Your task to perform on an android device: Search for jbl flip 4 on walmart, select the first entry, and add it to the cart. Image 0: 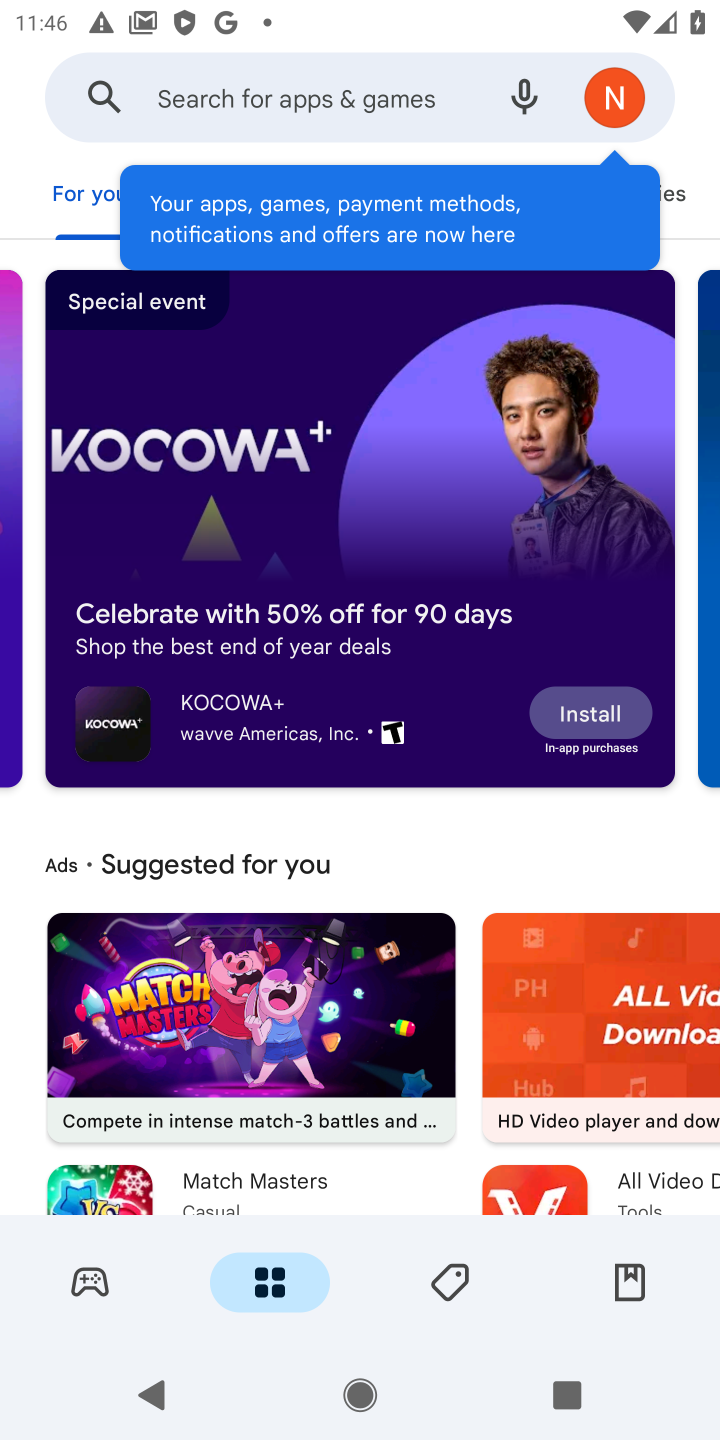
Step 0: press home button
Your task to perform on an android device: Search for jbl flip 4 on walmart, select the first entry, and add it to the cart. Image 1: 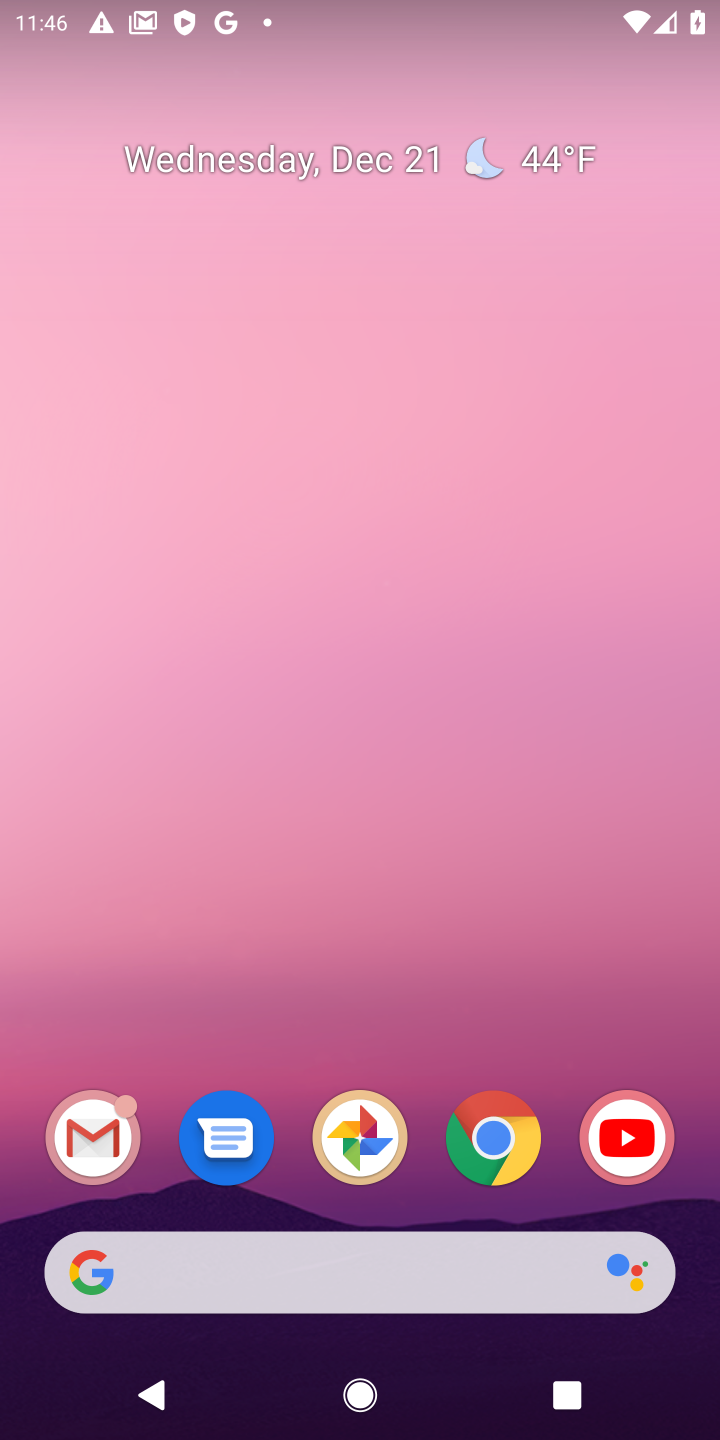
Step 1: click (490, 1146)
Your task to perform on an android device: Search for jbl flip 4 on walmart, select the first entry, and add it to the cart. Image 2: 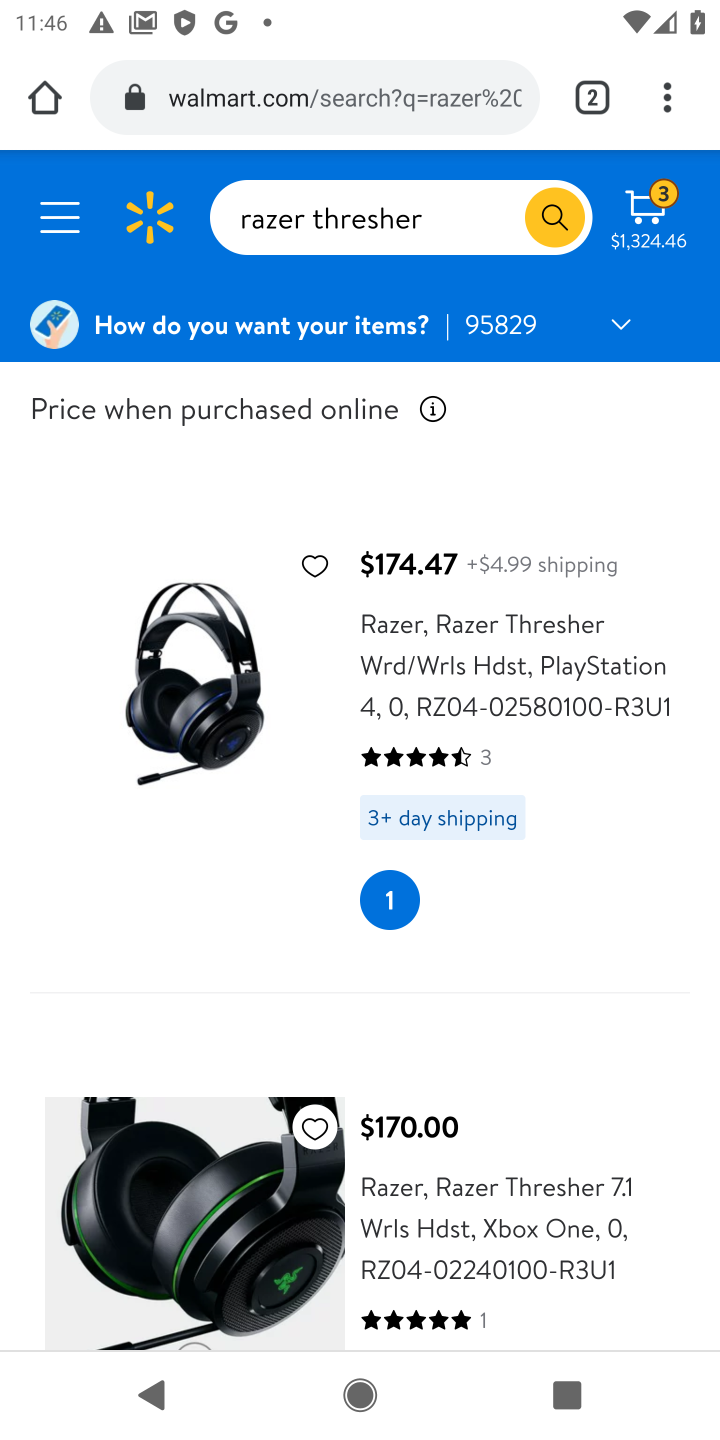
Step 2: click (426, 219)
Your task to perform on an android device: Search for jbl flip 4 on walmart, select the first entry, and add it to the cart. Image 3: 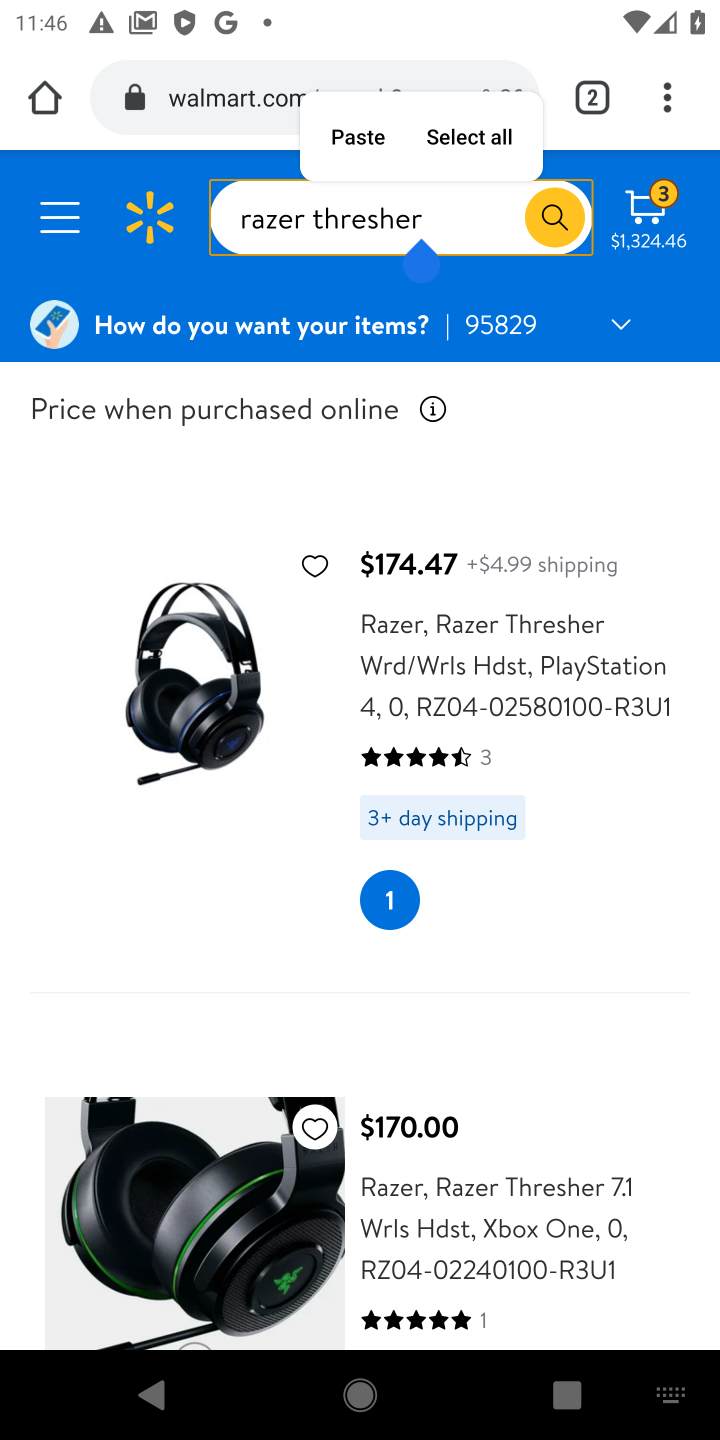
Step 3: click (542, 220)
Your task to perform on an android device: Search for jbl flip 4 on walmart, select the first entry, and add it to the cart. Image 4: 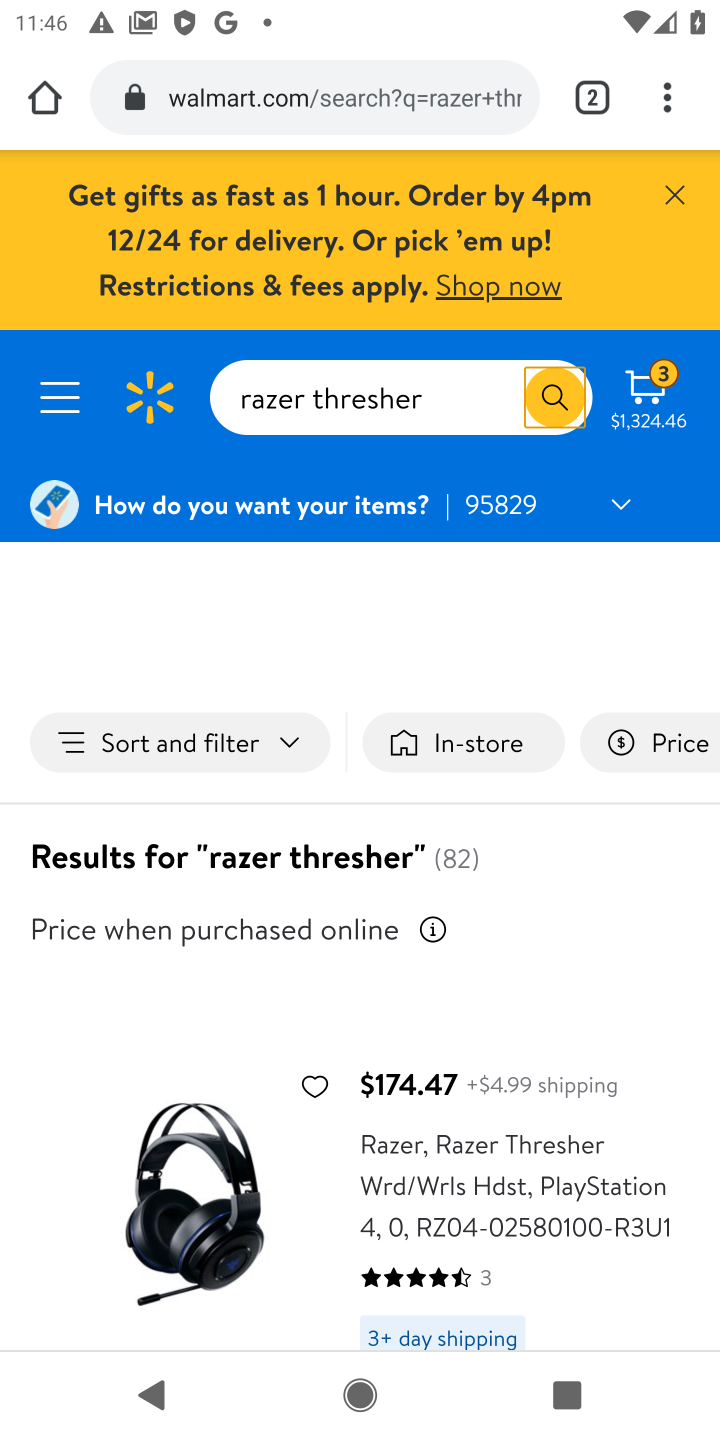
Step 4: click (443, 409)
Your task to perform on an android device: Search for jbl flip 4 on walmart, select the first entry, and add it to the cart. Image 5: 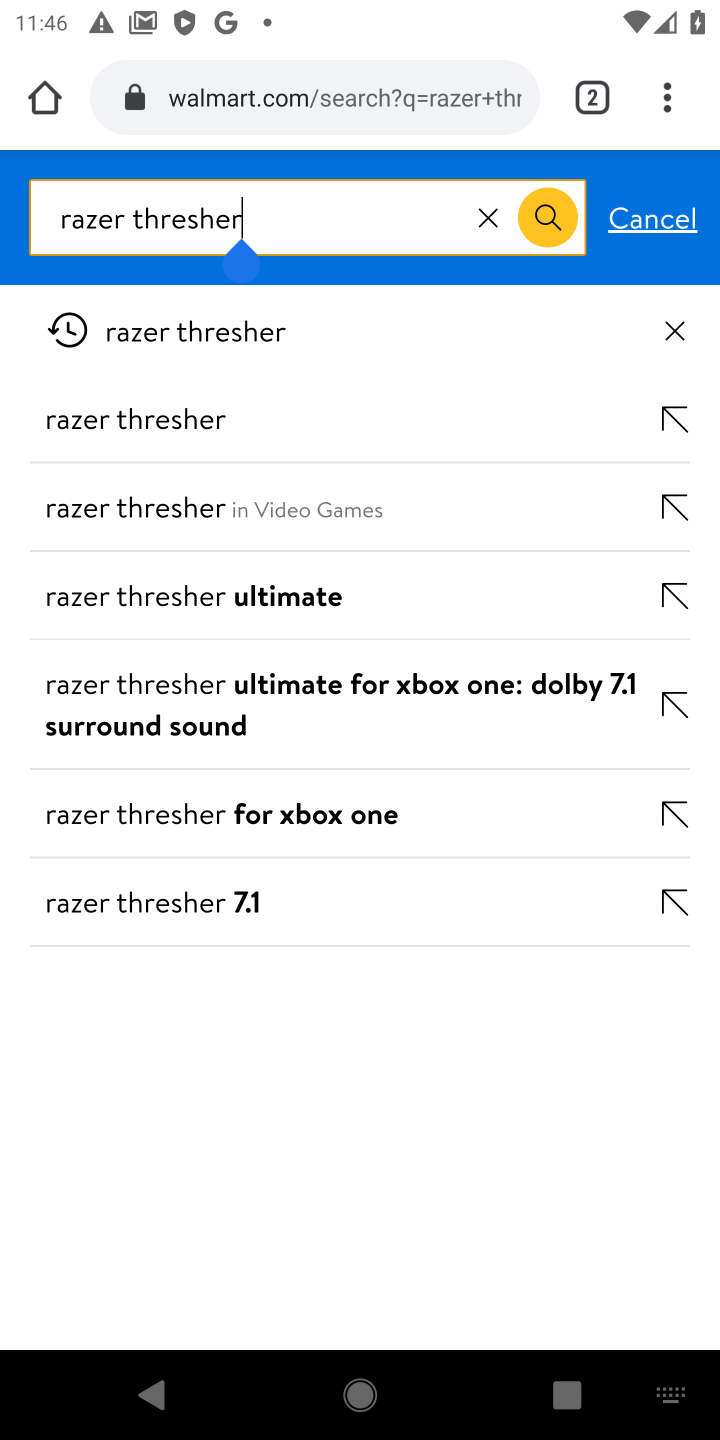
Step 5: click (490, 230)
Your task to perform on an android device: Search for jbl flip 4 on walmart, select the first entry, and add it to the cart. Image 6: 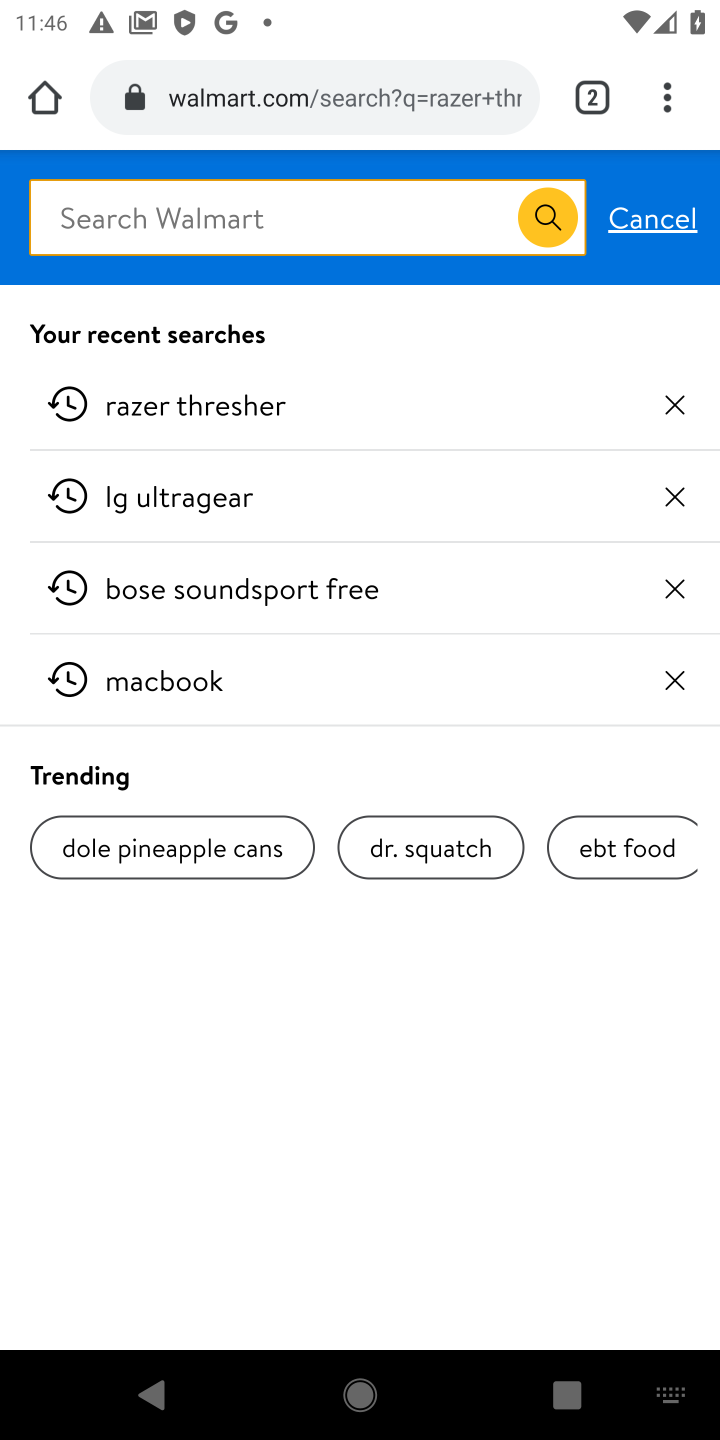
Step 6: type "jbl flip 4"
Your task to perform on an android device: Search for jbl flip 4 on walmart, select the first entry, and add it to the cart. Image 7: 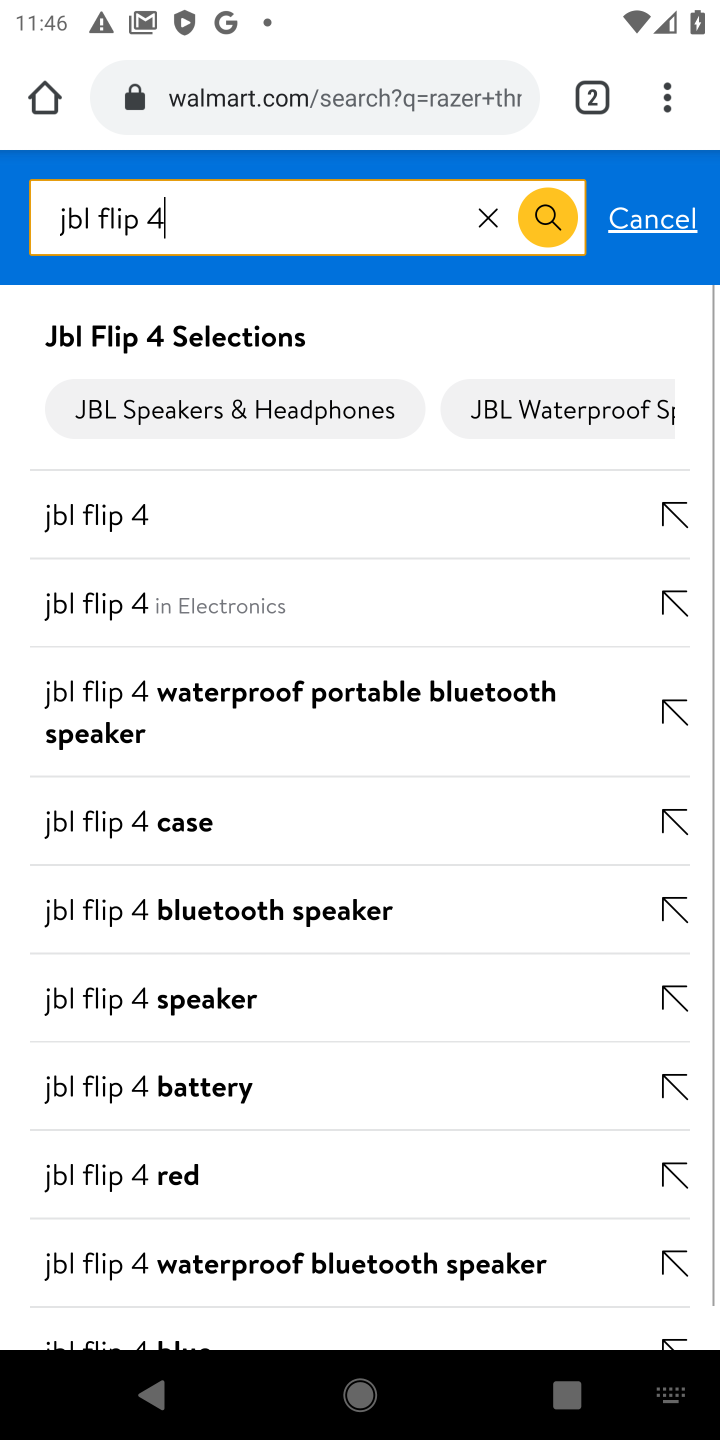
Step 7: click (52, 520)
Your task to perform on an android device: Search for jbl flip 4 on walmart, select the first entry, and add it to the cart. Image 8: 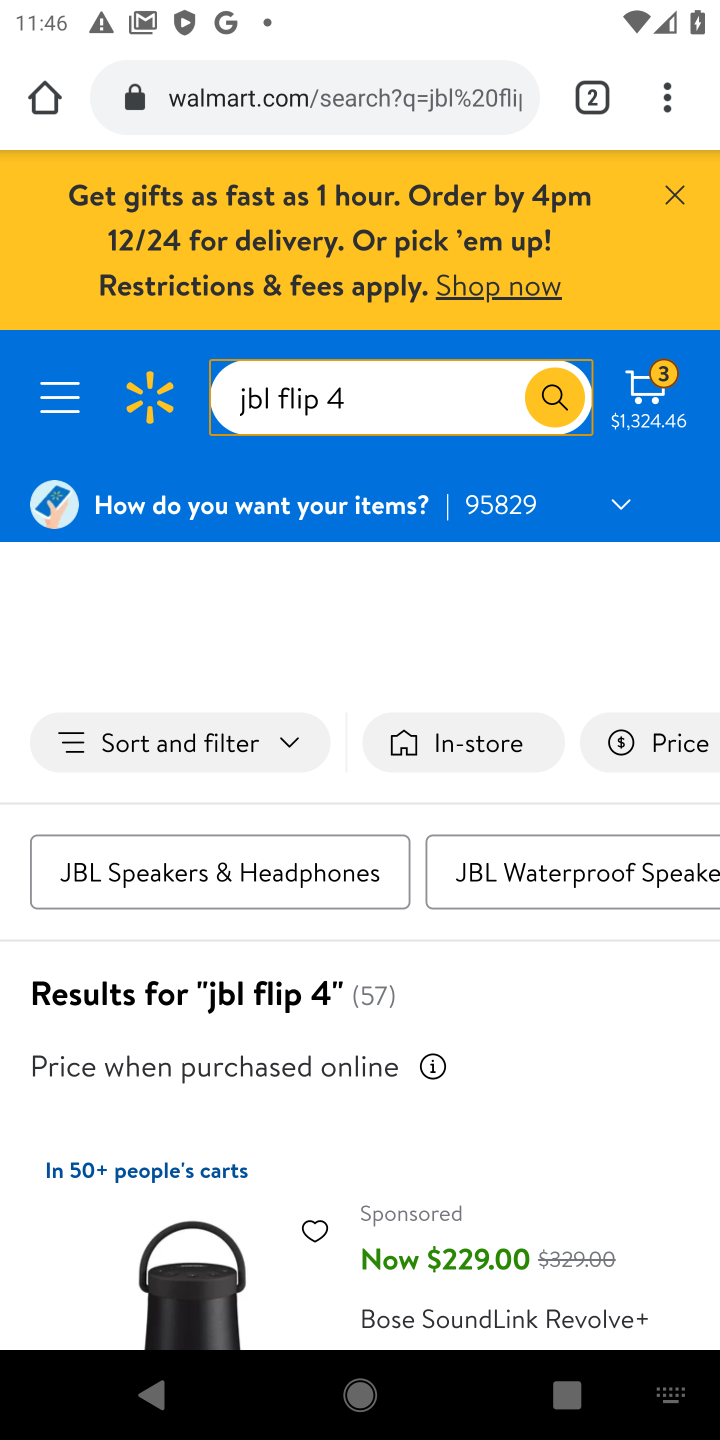
Step 8: task complete